Your task to perform on an android device: check the backup settings in the google photos Image 0: 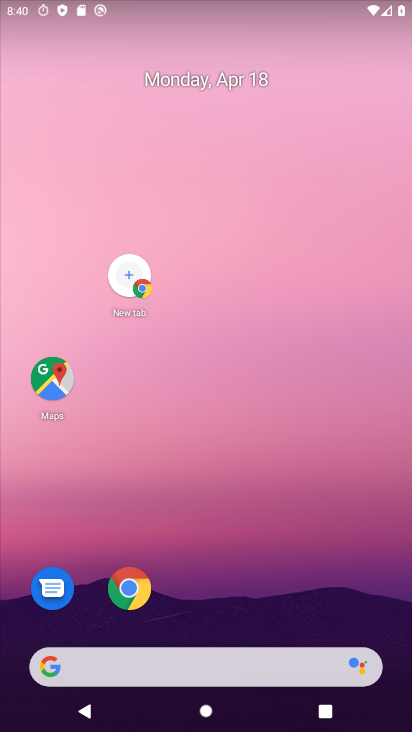
Step 0: drag from (404, 114) to (319, 148)
Your task to perform on an android device: check the backup settings in the google photos Image 1: 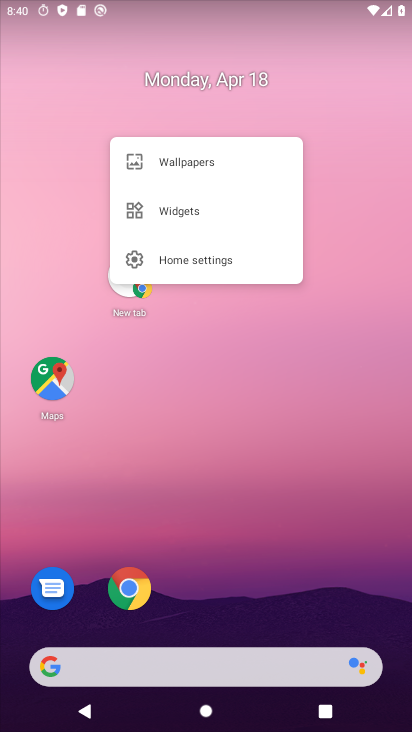
Step 1: click (264, 538)
Your task to perform on an android device: check the backup settings in the google photos Image 2: 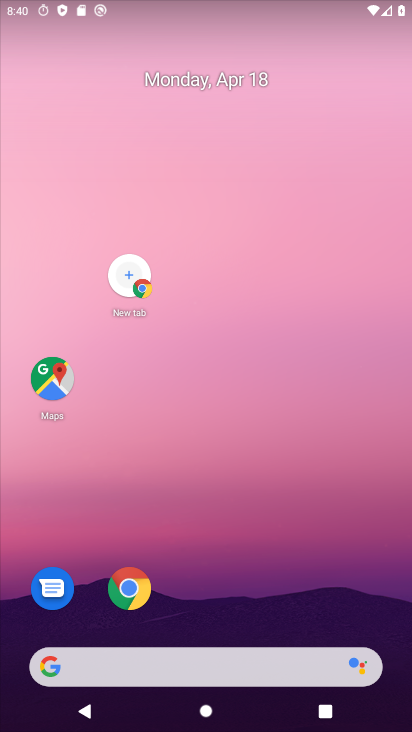
Step 2: drag from (279, 603) to (378, 18)
Your task to perform on an android device: check the backup settings in the google photos Image 3: 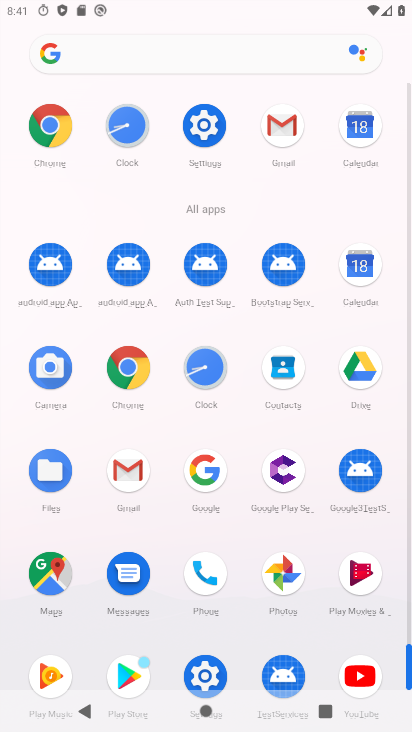
Step 3: click (271, 575)
Your task to perform on an android device: check the backup settings in the google photos Image 4: 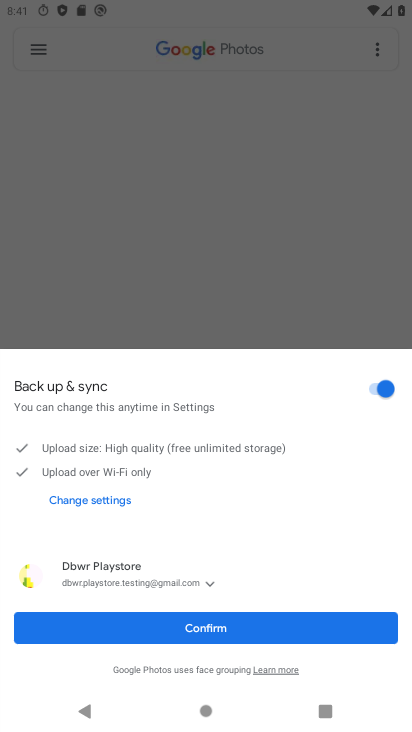
Step 4: click (206, 630)
Your task to perform on an android device: check the backup settings in the google photos Image 5: 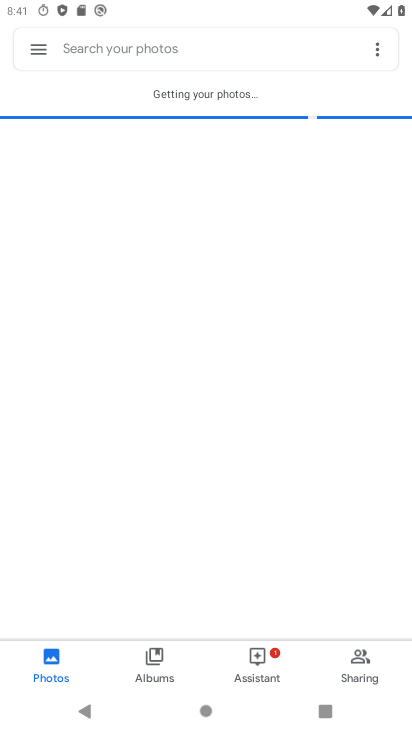
Step 5: click (36, 44)
Your task to perform on an android device: check the backup settings in the google photos Image 6: 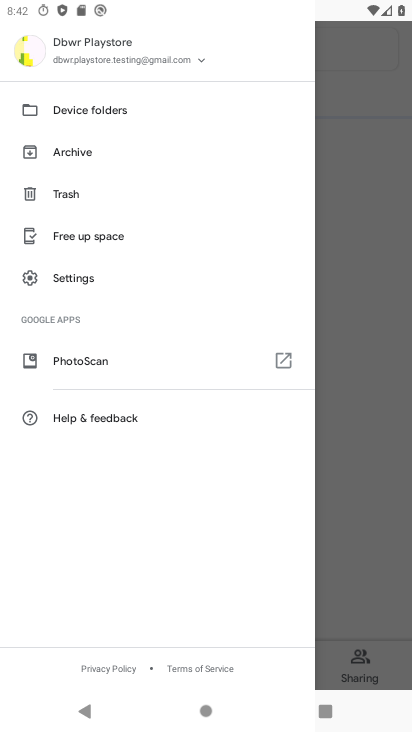
Step 6: click (74, 279)
Your task to perform on an android device: check the backup settings in the google photos Image 7: 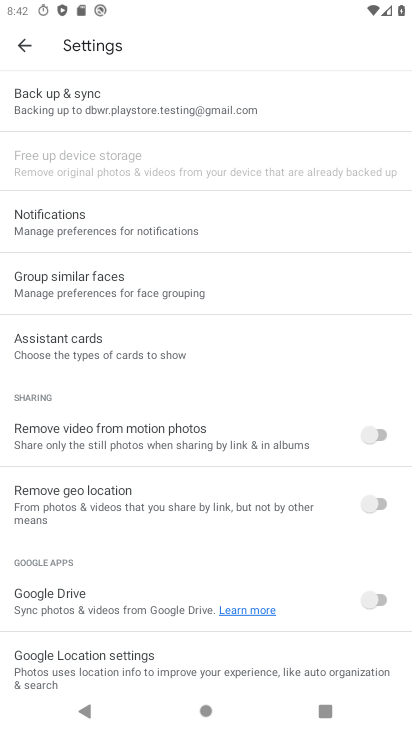
Step 7: click (111, 93)
Your task to perform on an android device: check the backup settings in the google photos Image 8: 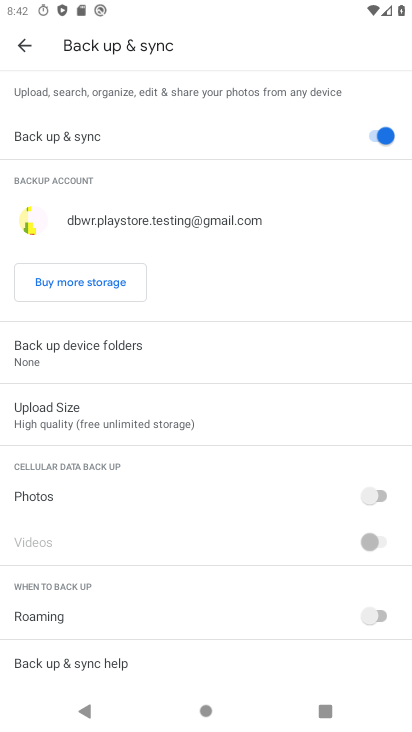
Step 8: task complete